Your task to perform on an android device: Check the news Image 0: 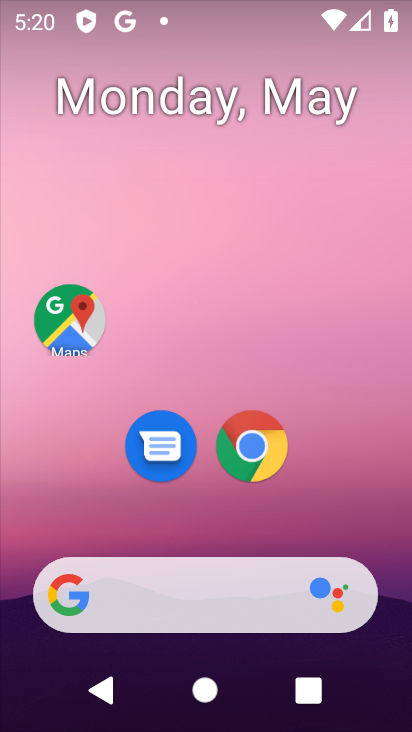
Step 0: click (252, 442)
Your task to perform on an android device: Check the news Image 1: 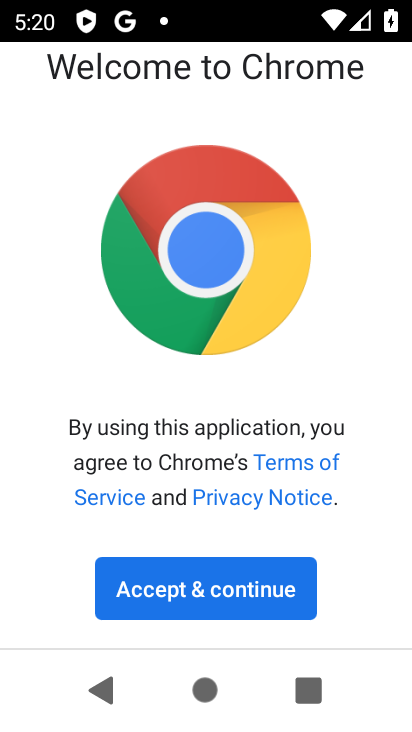
Step 1: click (241, 583)
Your task to perform on an android device: Check the news Image 2: 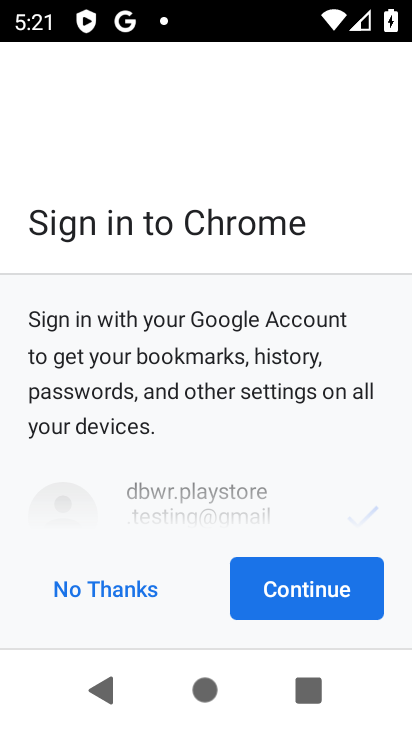
Step 2: click (352, 575)
Your task to perform on an android device: Check the news Image 3: 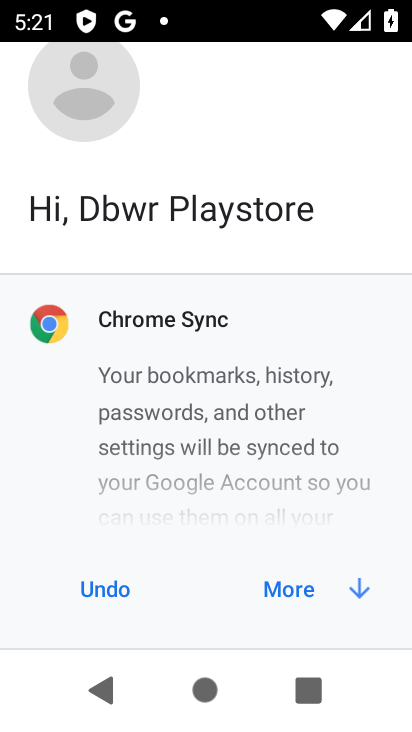
Step 3: click (324, 585)
Your task to perform on an android device: Check the news Image 4: 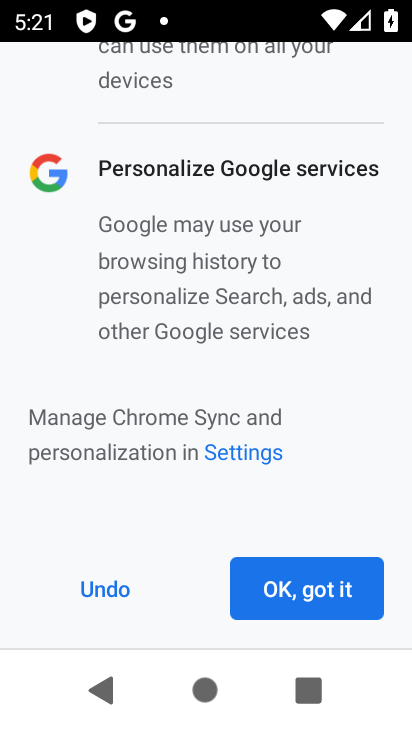
Step 4: click (324, 585)
Your task to perform on an android device: Check the news Image 5: 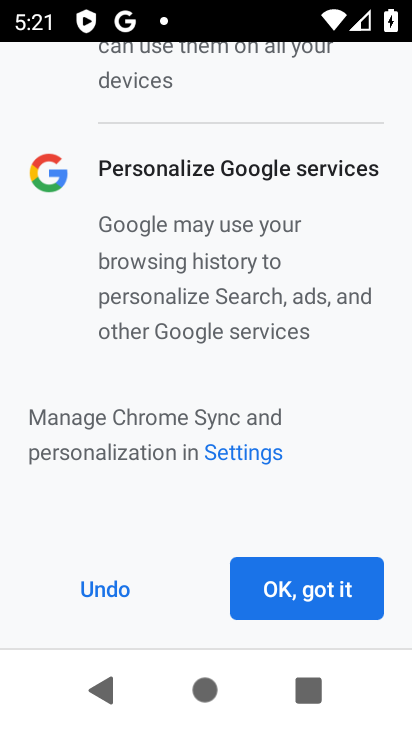
Step 5: click (324, 585)
Your task to perform on an android device: Check the news Image 6: 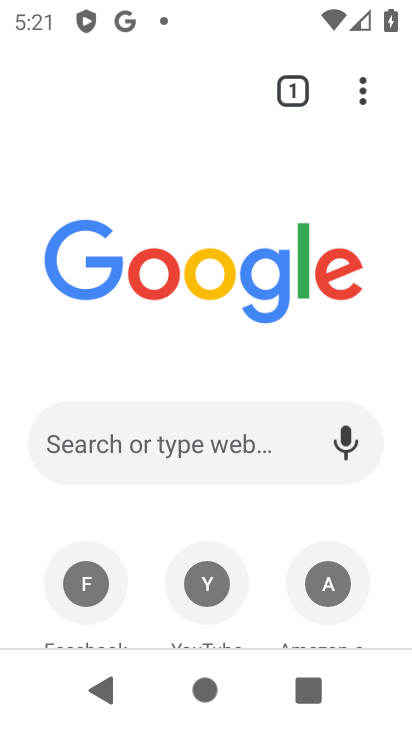
Step 6: click (156, 455)
Your task to perform on an android device: Check the news Image 7: 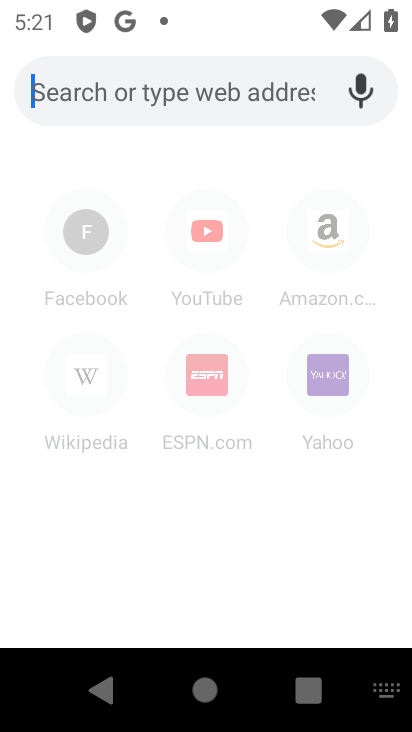
Step 7: type "Check the news"
Your task to perform on an android device: Check the news Image 8: 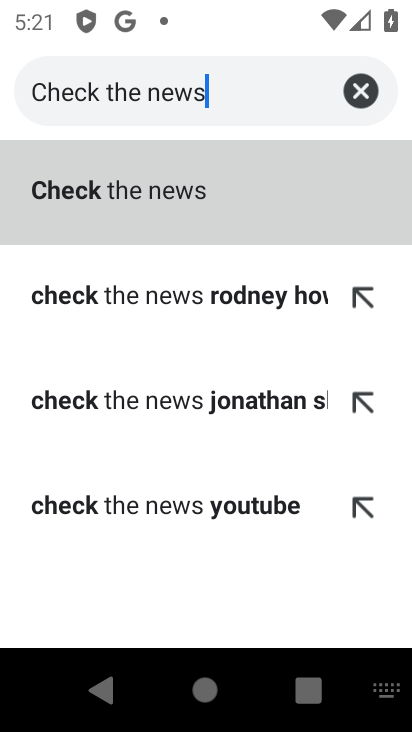
Step 8: click (117, 184)
Your task to perform on an android device: Check the news Image 9: 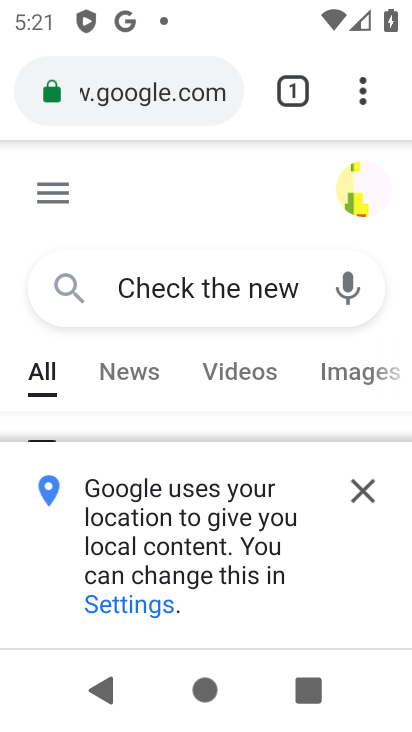
Step 9: click (360, 489)
Your task to perform on an android device: Check the news Image 10: 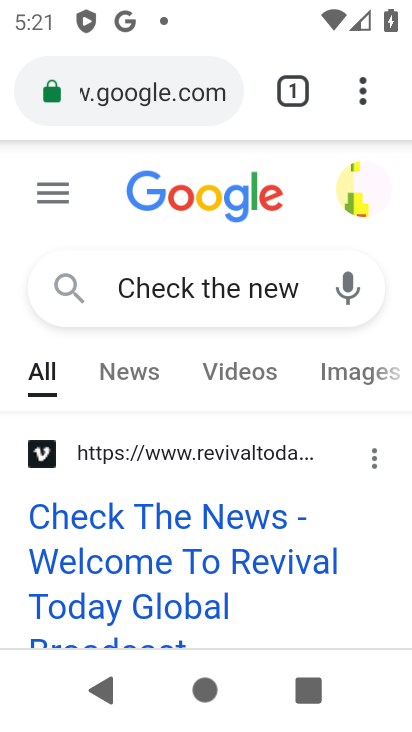
Step 10: click (127, 365)
Your task to perform on an android device: Check the news Image 11: 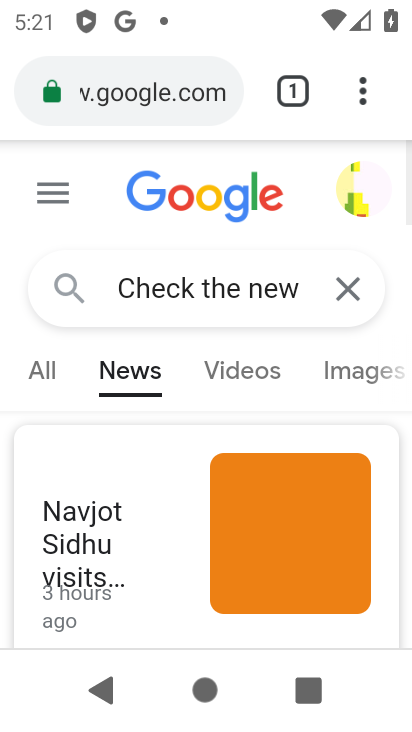
Step 11: task complete